Your task to perform on an android device: toggle javascript in the chrome app Image 0: 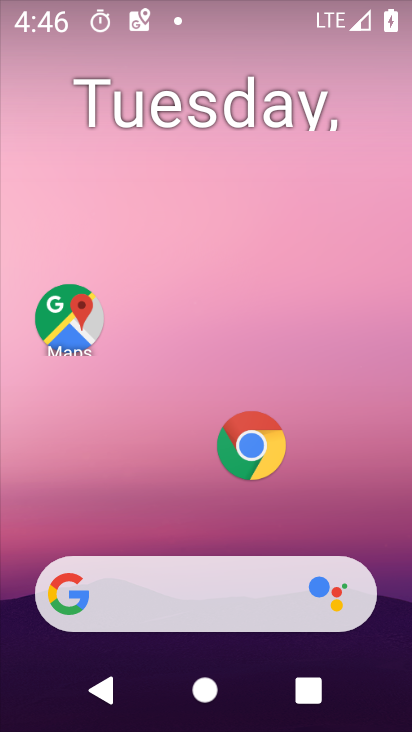
Step 0: click (258, 436)
Your task to perform on an android device: toggle javascript in the chrome app Image 1: 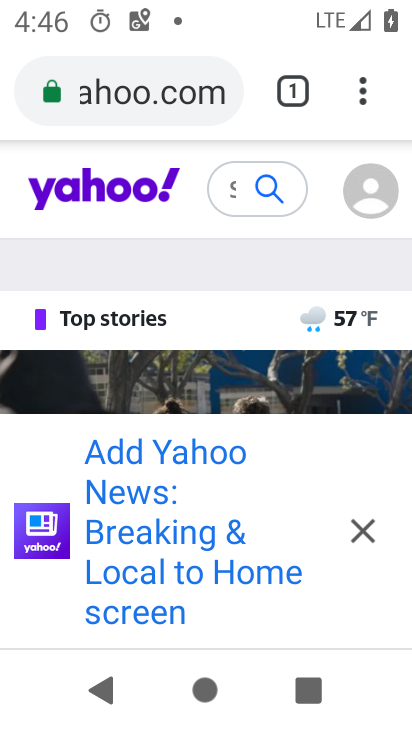
Step 1: click (370, 96)
Your task to perform on an android device: toggle javascript in the chrome app Image 2: 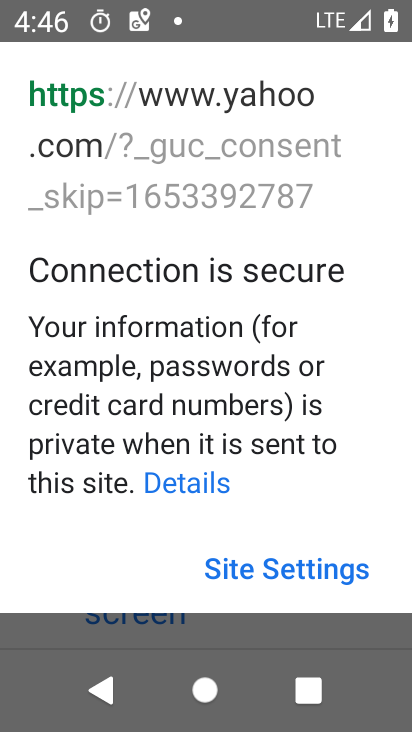
Step 2: click (255, 586)
Your task to perform on an android device: toggle javascript in the chrome app Image 3: 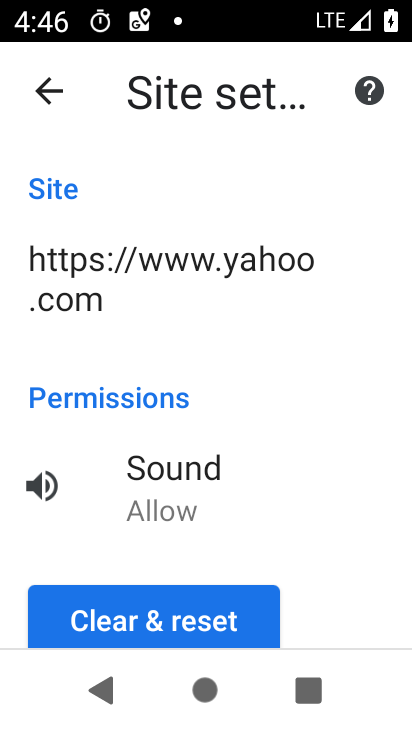
Step 3: click (172, 617)
Your task to perform on an android device: toggle javascript in the chrome app Image 4: 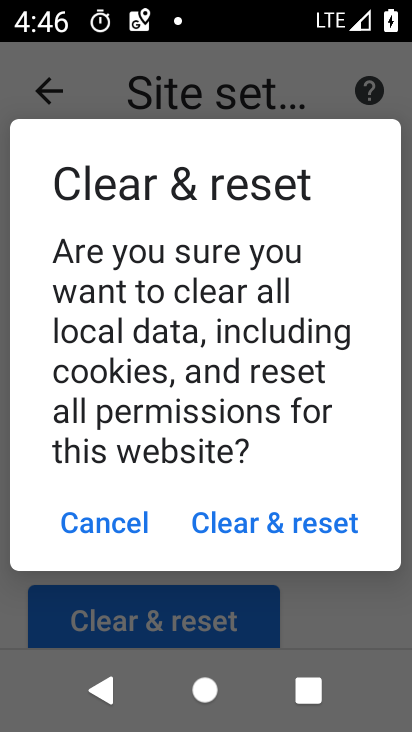
Step 4: click (227, 531)
Your task to perform on an android device: toggle javascript in the chrome app Image 5: 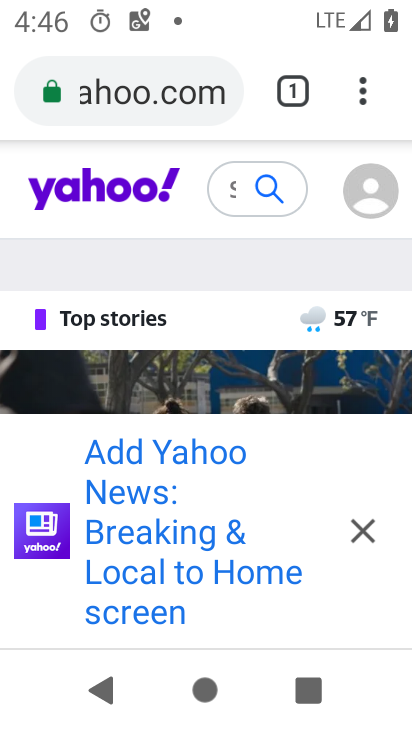
Step 5: click (372, 96)
Your task to perform on an android device: toggle javascript in the chrome app Image 6: 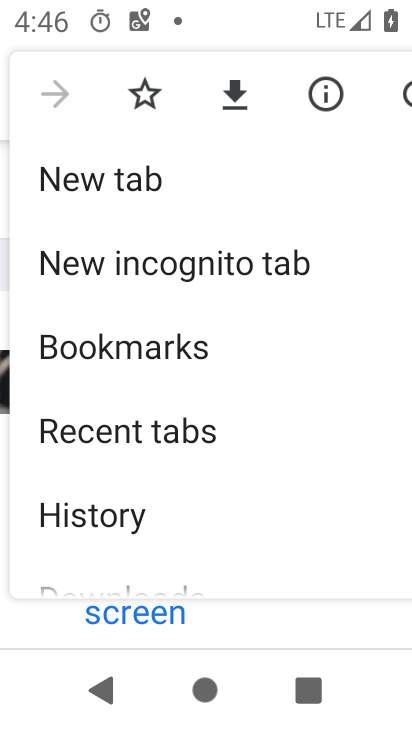
Step 6: click (364, 94)
Your task to perform on an android device: toggle javascript in the chrome app Image 7: 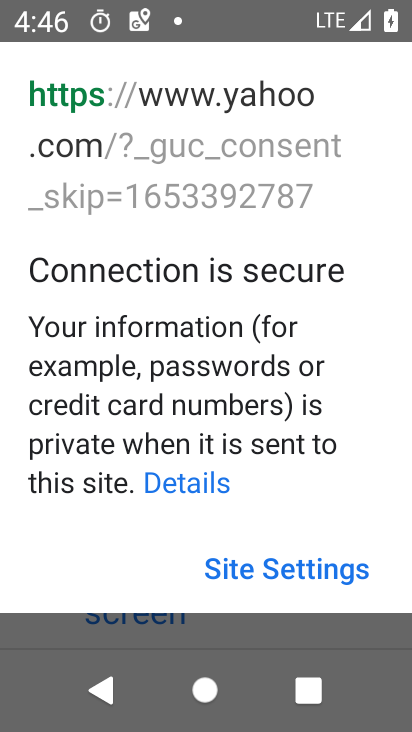
Step 7: click (136, 637)
Your task to perform on an android device: toggle javascript in the chrome app Image 8: 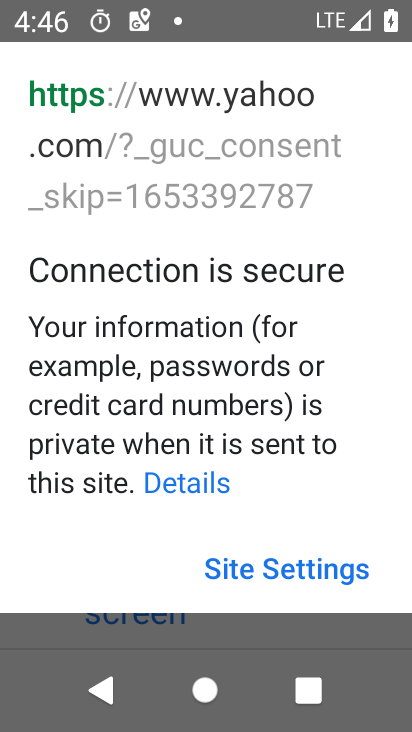
Step 8: press back button
Your task to perform on an android device: toggle javascript in the chrome app Image 9: 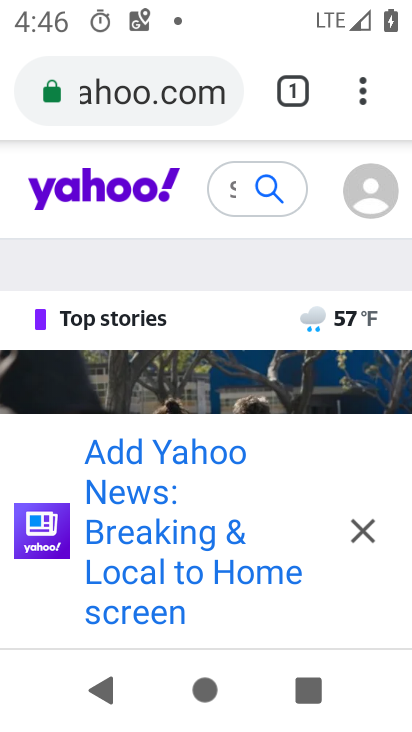
Step 9: click (364, 103)
Your task to perform on an android device: toggle javascript in the chrome app Image 10: 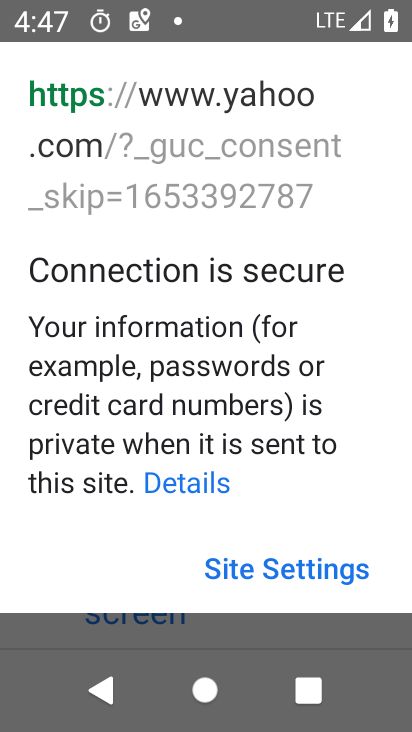
Step 10: task complete